Your task to perform on an android device: Open Chrome and go to settings Image 0: 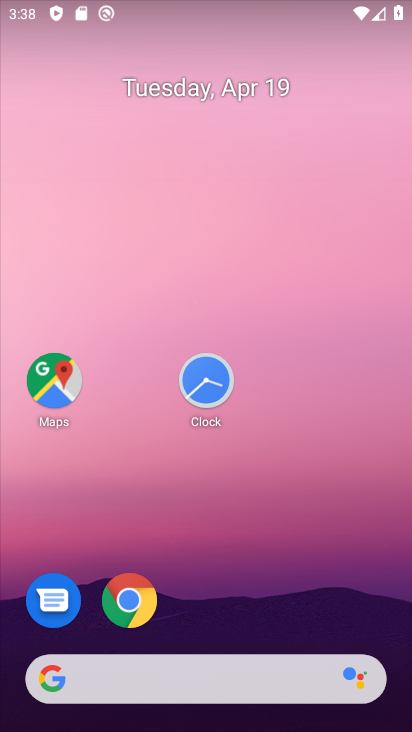
Step 0: drag from (185, 494) to (171, 184)
Your task to perform on an android device: Open Chrome and go to settings Image 1: 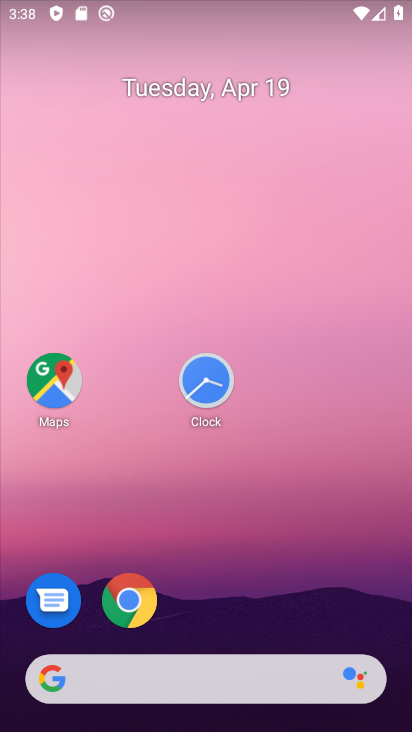
Step 1: drag from (280, 634) to (235, 297)
Your task to perform on an android device: Open Chrome and go to settings Image 2: 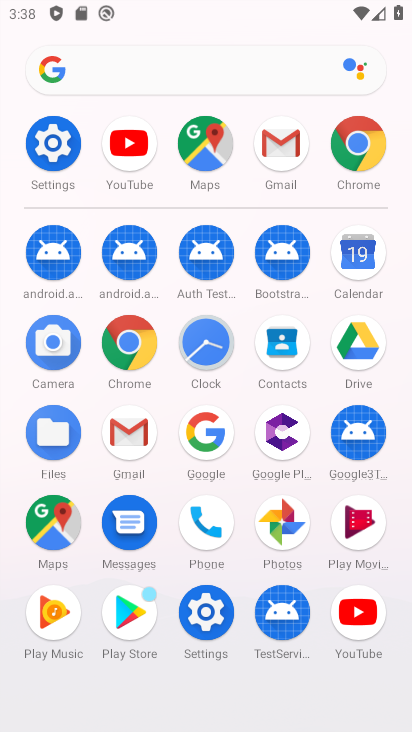
Step 2: click (364, 149)
Your task to perform on an android device: Open Chrome and go to settings Image 3: 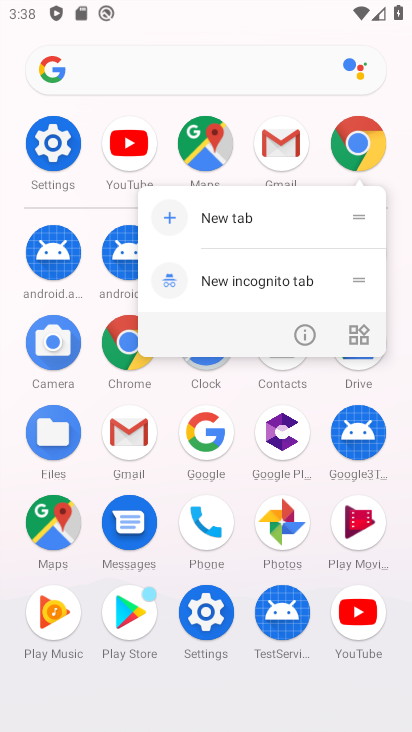
Step 3: click (367, 142)
Your task to perform on an android device: Open Chrome and go to settings Image 4: 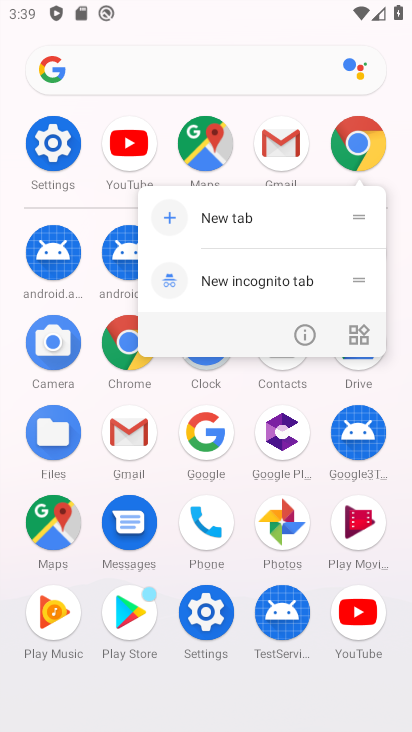
Step 4: click (367, 142)
Your task to perform on an android device: Open Chrome and go to settings Image 5: 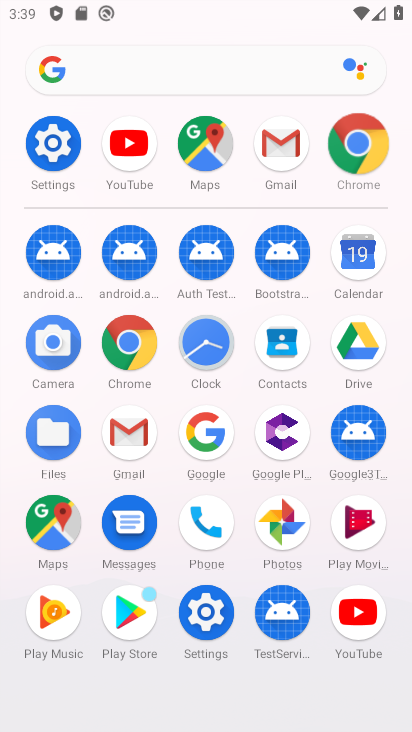
Step 5: click (367, 142)
Your task to perform on an android device: Open Chrome and go to settings Image 6: 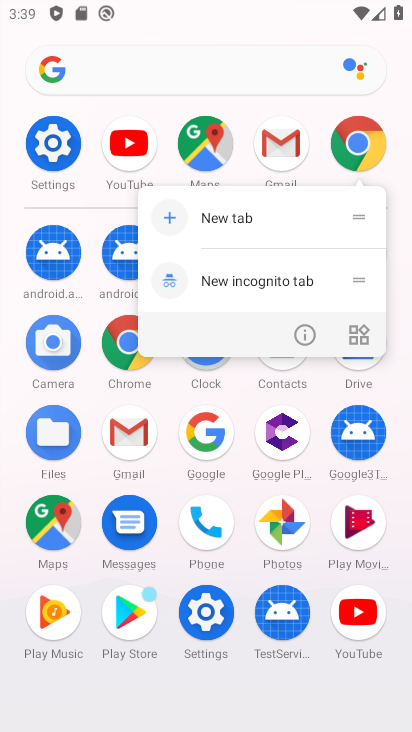
Step 6: click (367, 142)
Your task to perform on an android device: Open Chrome and go to settings Image 7: 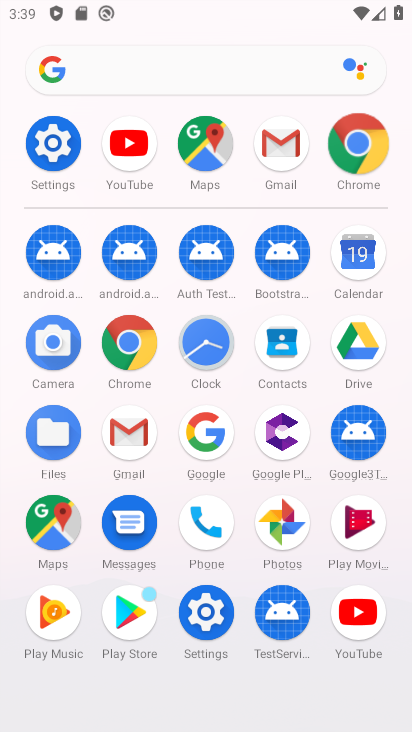
Step 7: click (367, 142)
Your task to perform on an android device: Open Chrome and go to settings Image 8: 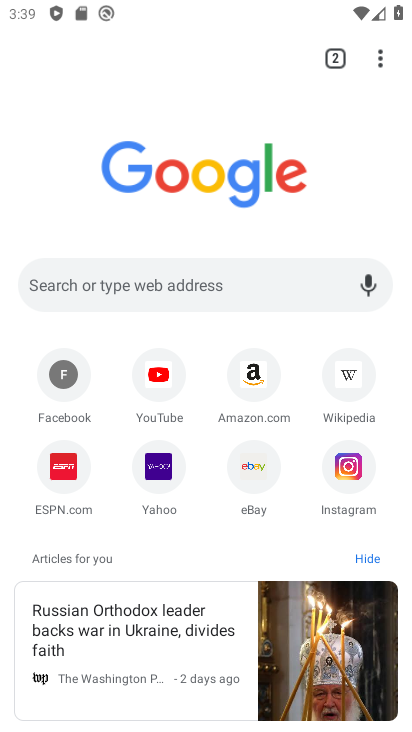
Step 8: click (381, 59)
Your task to perform on an android device: Open Chrome and go to settings Image 9: 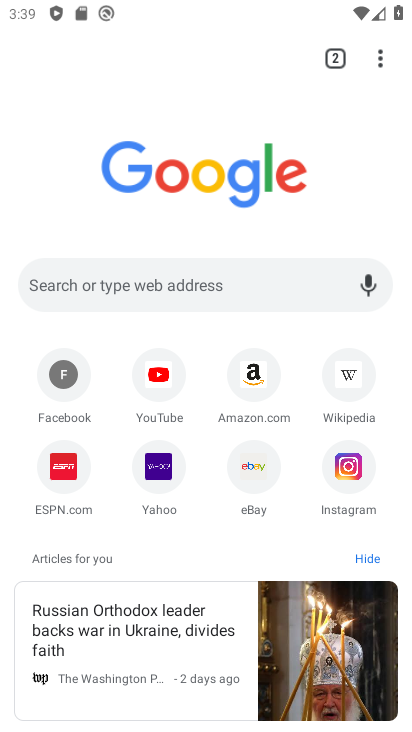
Step 9: click (381, 59)
Your task to perform on an android device: Open Chrome and go to settings Image 10: 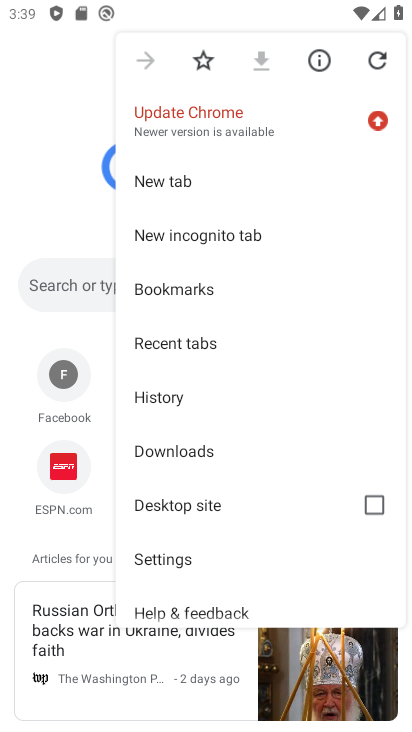
Step 10: click (166, 560)
Your task to perform on an android device: Open Chrome and go to settings Image 11: 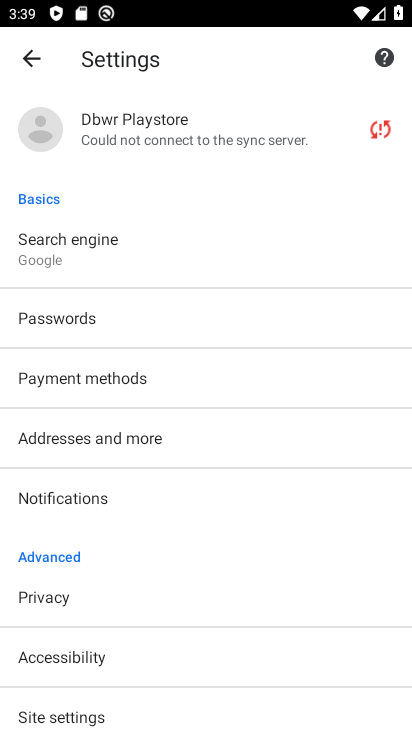
Step 11: task complete